Your task to perform on an android device: install app "Paramount+ | Peak Streaming" Image 0: 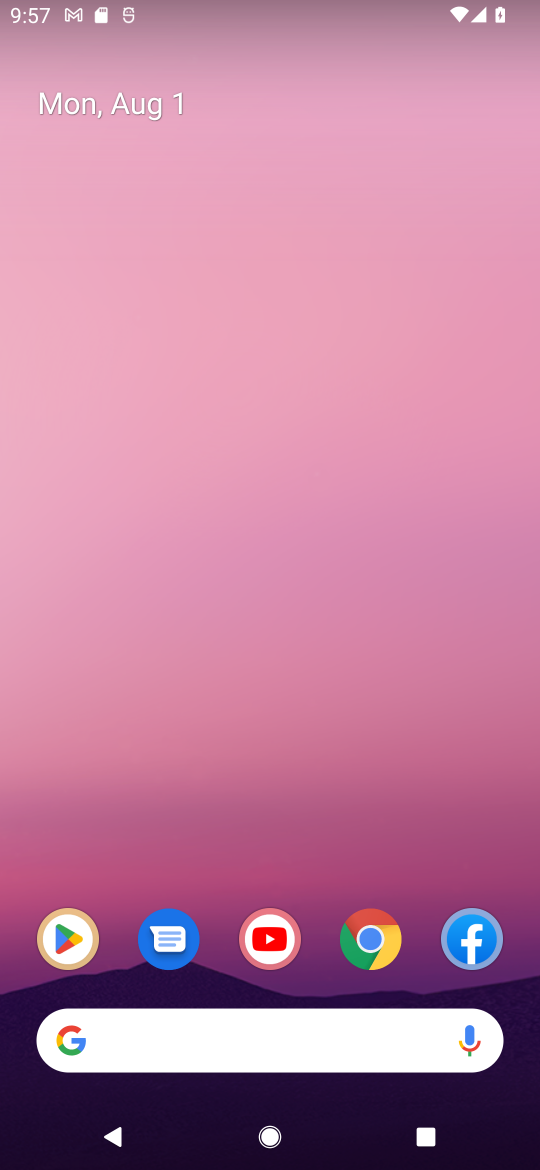
Step 0: drag from (296, 844) to (239, 283)
Your task to perform on an android device: install app "Paramount+ | Peak Streaming" Image 1: 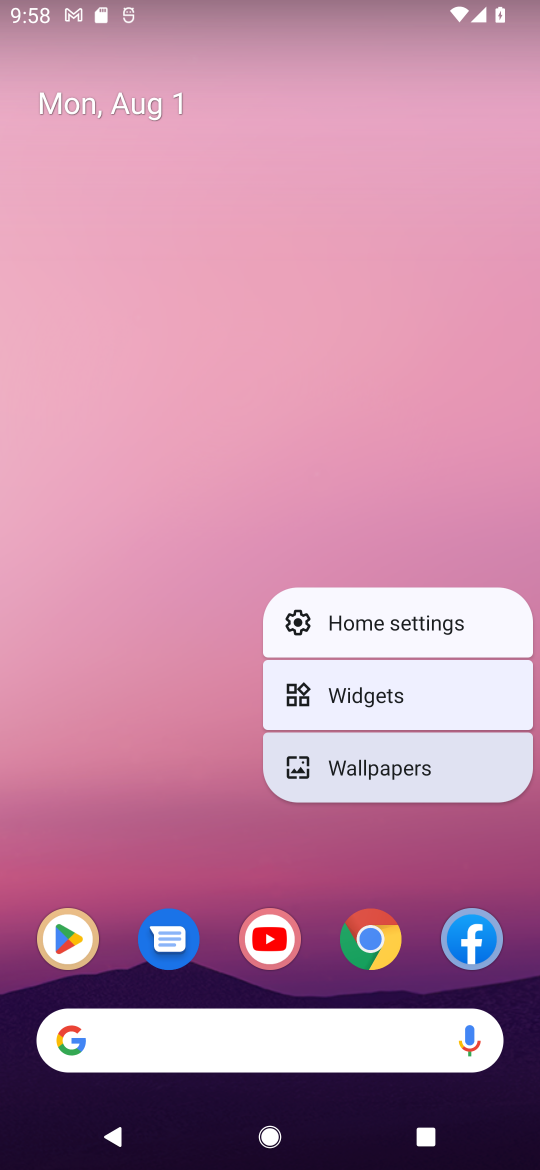
Step 1: click (61, 941)
Your task to perform on an android device: install app "Paramount+ | Peak Streaming" Image 2: 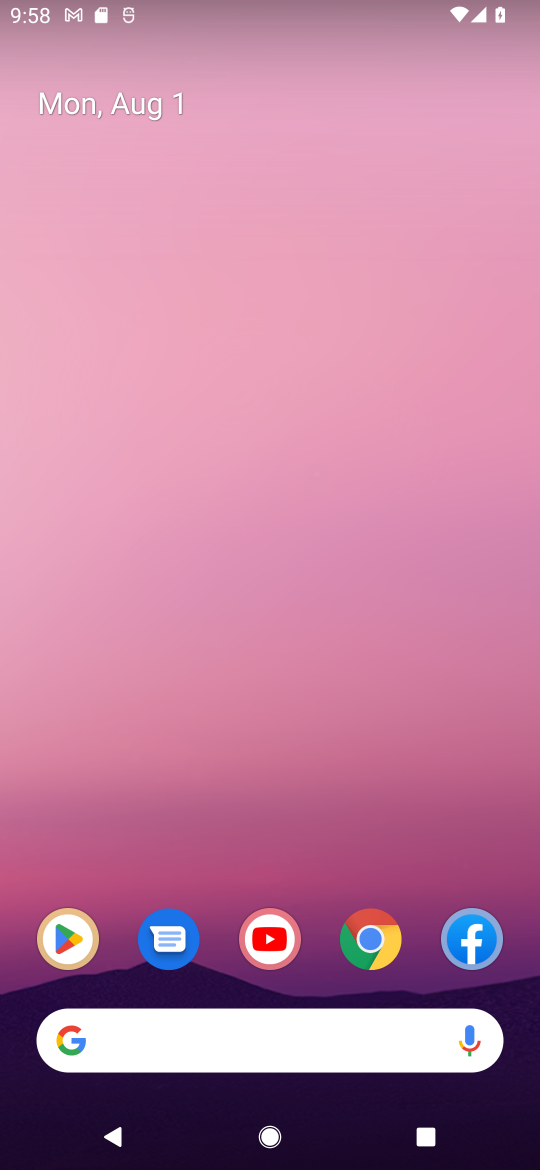
Step 2: click (61, 941)
Your task to perform on an android device: install app "Paramount+ | Peak Streaming" Image 3: 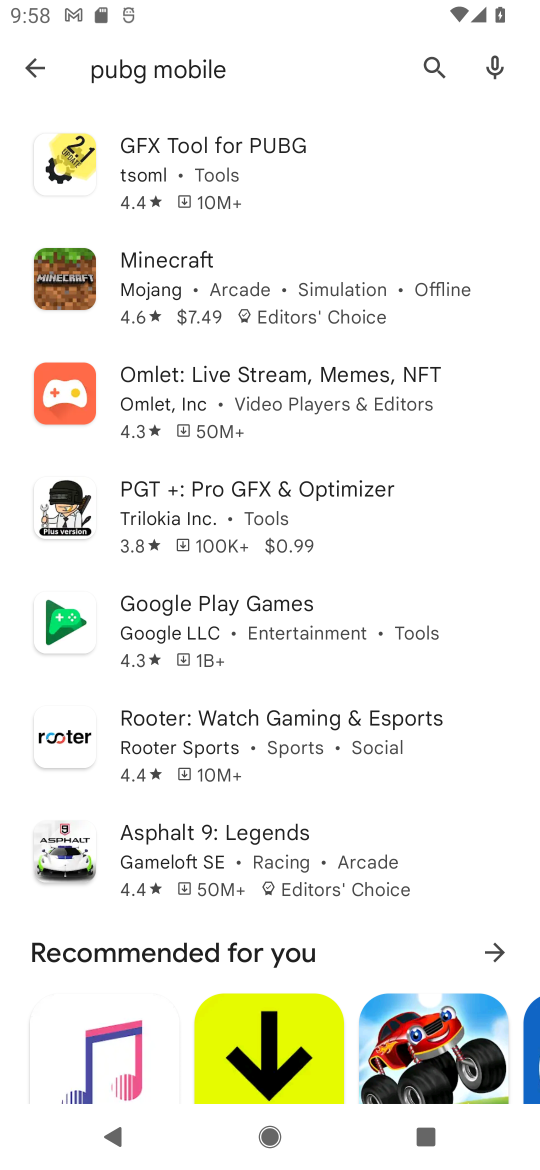
Step 3: click (444, 62)
Your task to perform on an android device: install app "Paramount+ | Peak Streaming" Image 4: 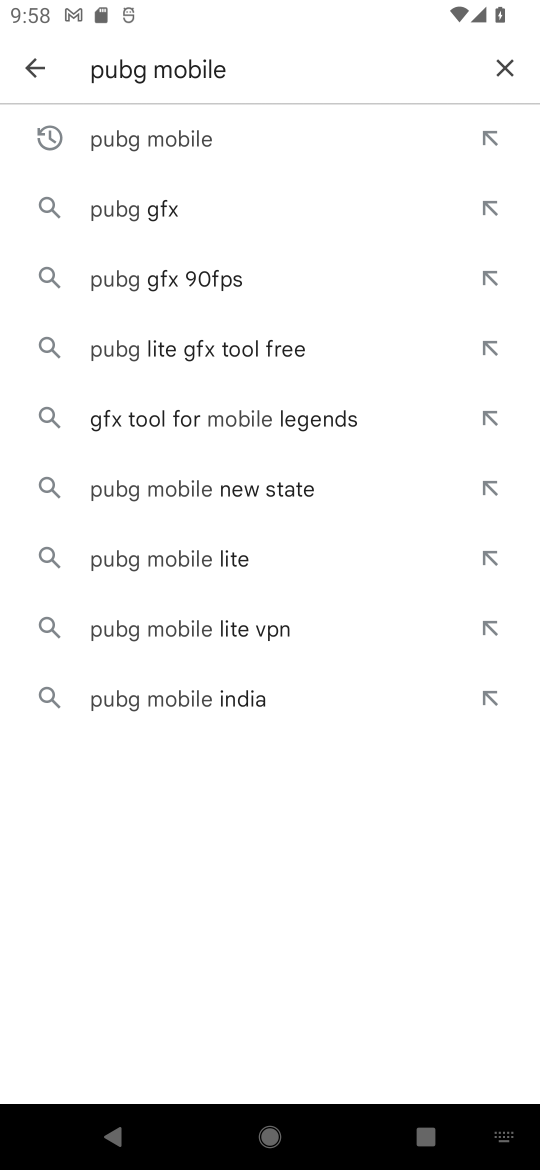
Step 4: click (514, 66)
Your task to perform on an android device: install app "Paramount+ | Peak Streaming" Image 5: 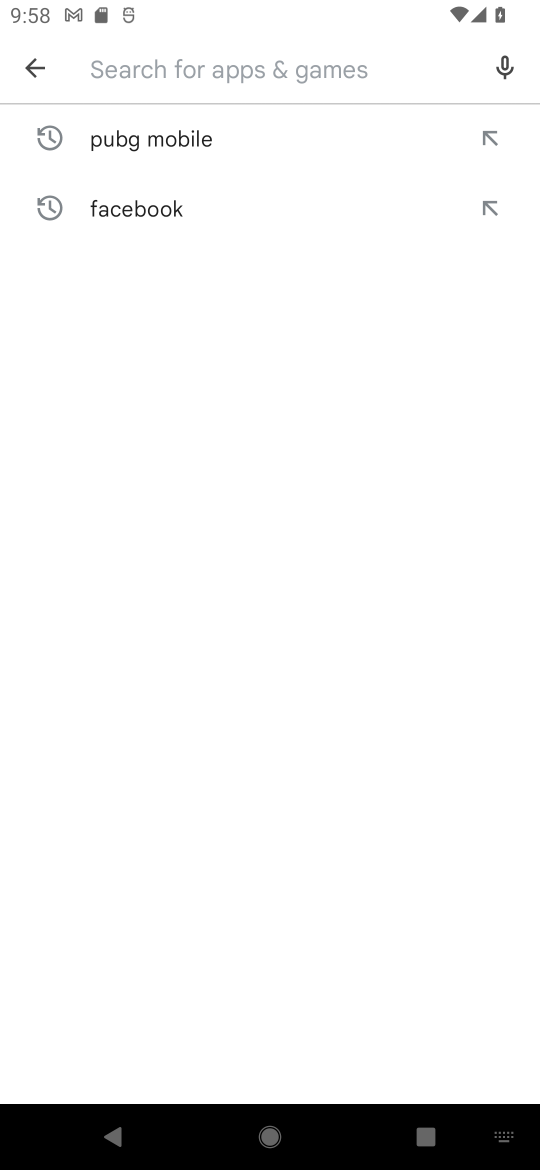
Step 5: type "paramount+"
Your task to perform on an android device: install app "Paramount+ | Peak Streaming" Image 6: 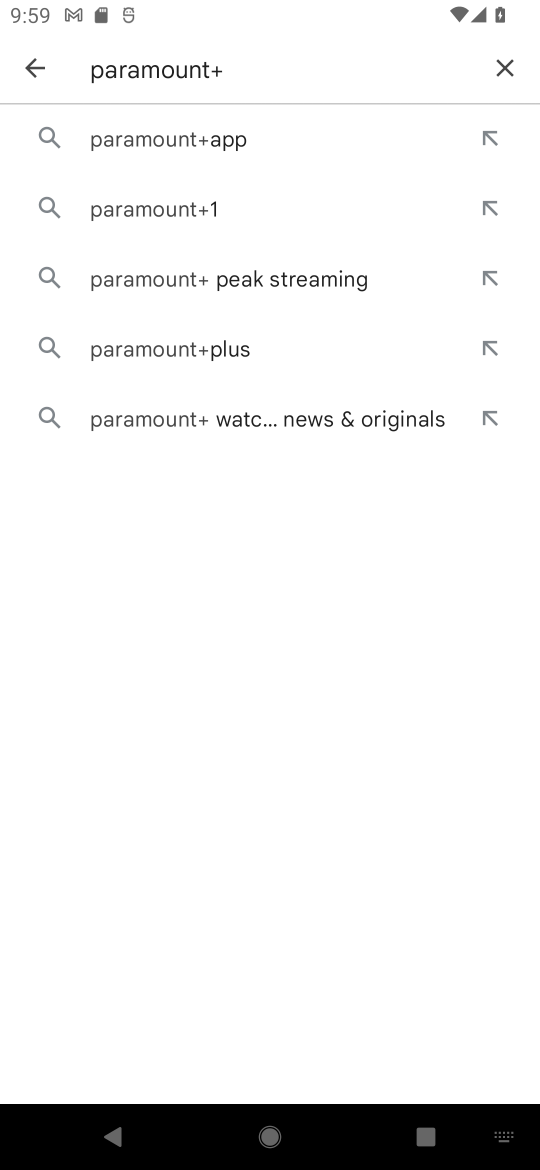
Step 6: press enter
Your task to perform on an android device: install app "Paramount+ | Peak Streaming" Image 7: 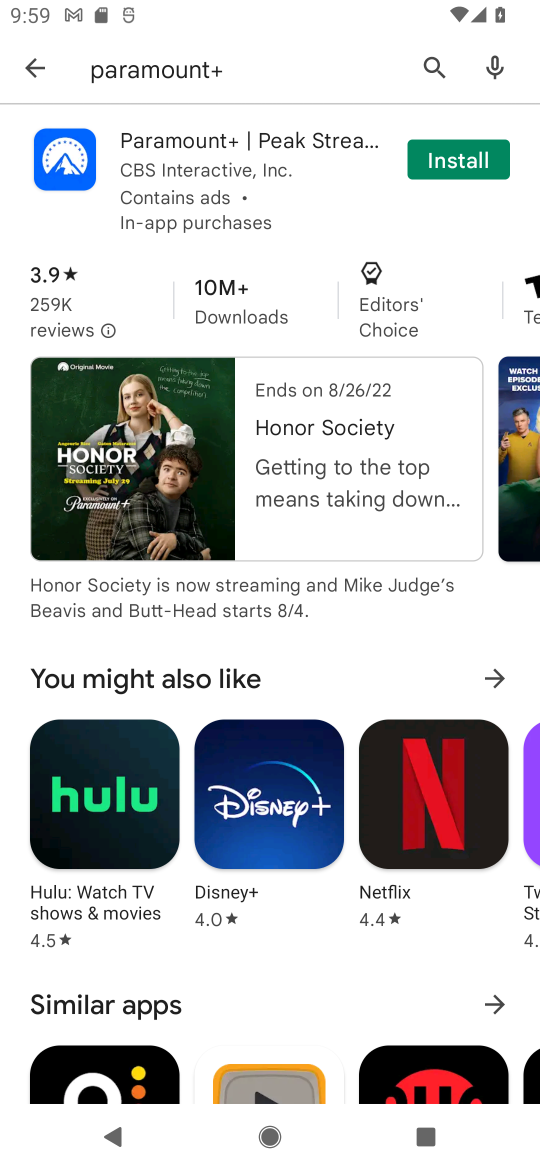
Step 7: click (444, 163)
Your task to perform on an android device: install app "Paramount+ | Peak Streaming" Image 8: 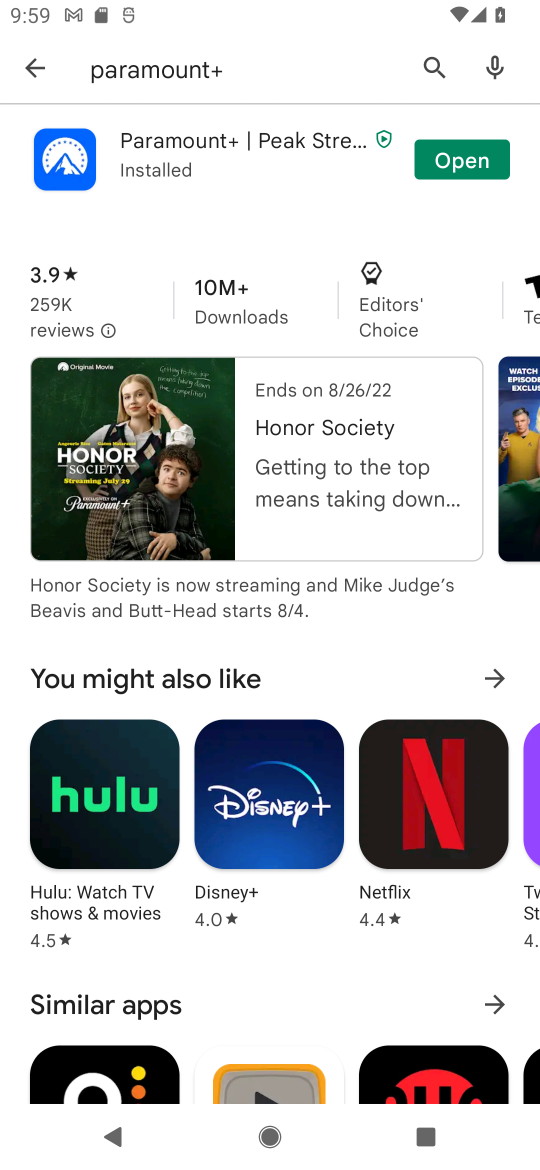
Step 8: task complete